Your task to perform on an android device: Open Chrome and go to settings Image 0: 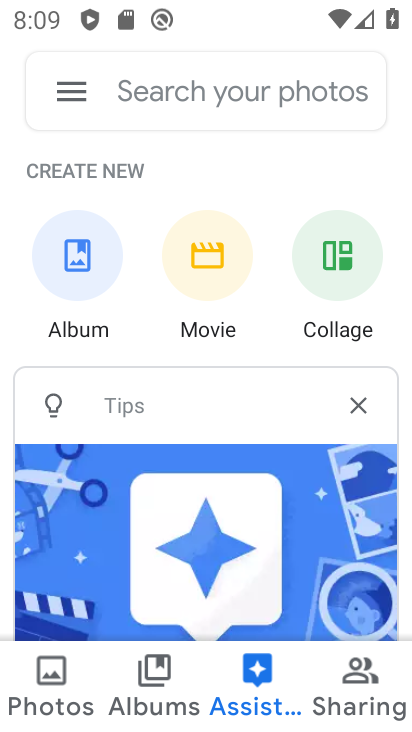
Step 0: press home button
Your task to perform on an android device: Open Chrome and go to settings Image 1: 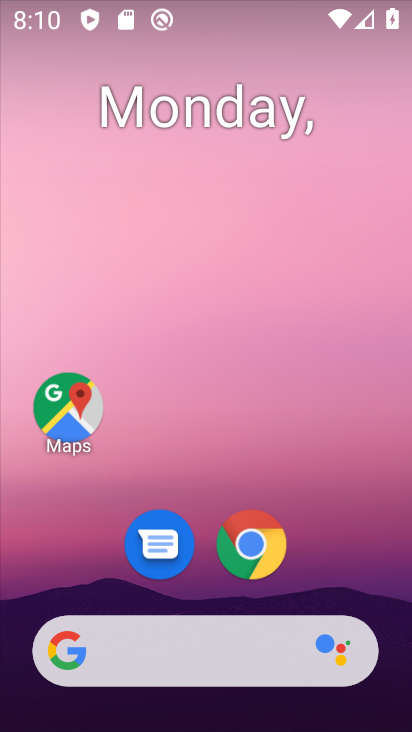
Step 1: click (238, 552)
Your task to perform on an android device: Open Chrome and go to settings Image 2: 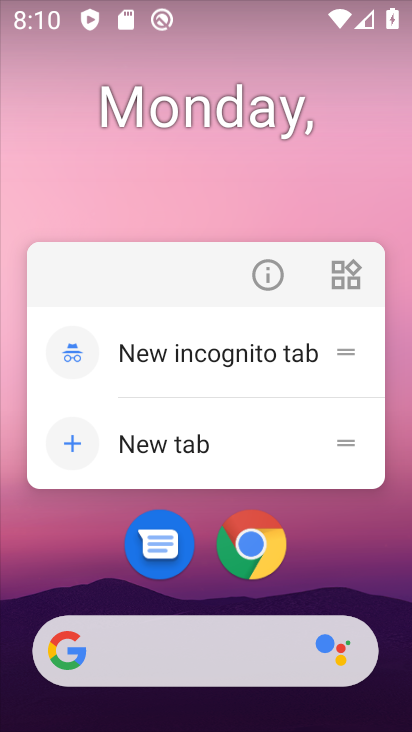
Step 2: click (259, 556)
Your task to perform on an android device: Open Chrome and go to settings Image 3: 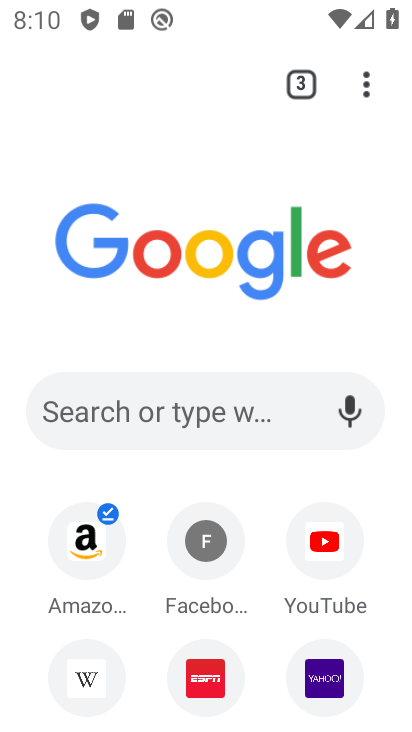
Step 3: click (368, 85)
Your task to perform on an android device: Open Chrome and go to settings Image 4: 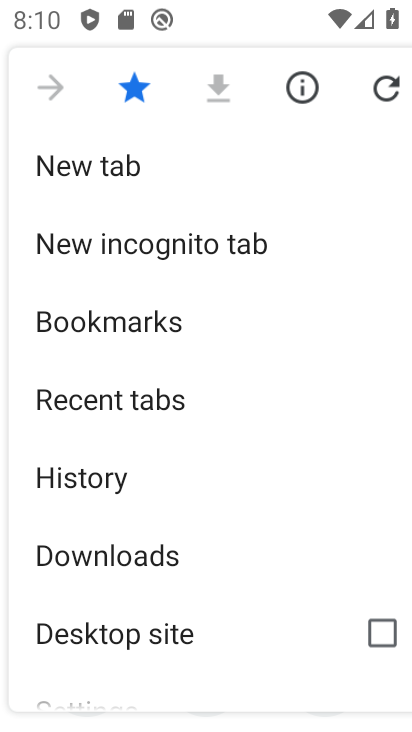
Step 4: drag from (279, 498) to (221, 29)
Your task to perform on an android device: Open Chrome and go to settings Image 5: 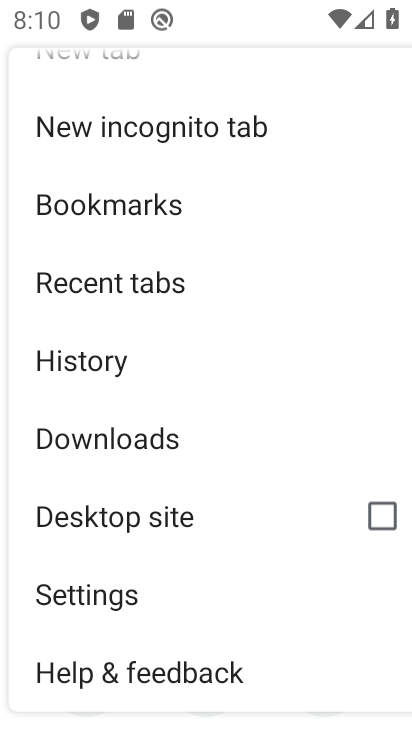
Step 5: click (86, 579)
Your task to perform on an android device: Open Chrome and go to settings Image 6: 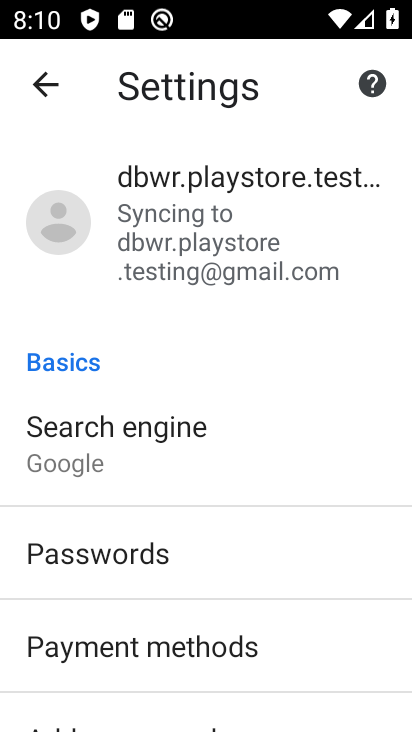
Step 6: task complete